Your task to perform on an android device: turn off smart reply in the gmail app Image 0: 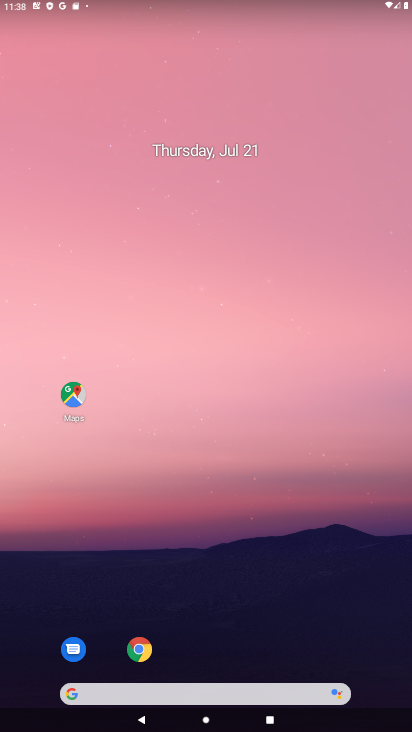
Step 0: drag from (237, 720) to (241, 130)
Your task to perform on an android device: turn off smart reply in the gmail app Image 1: 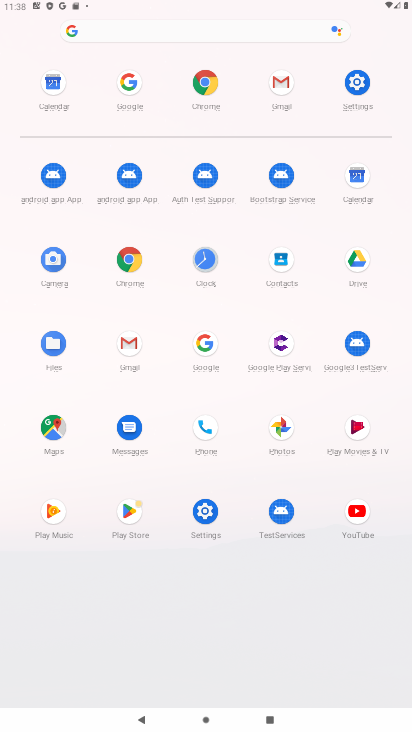
Step 1: click (127, 350)
Your task to perform on an android device: turn off smart reply in the gmail app Image 2: 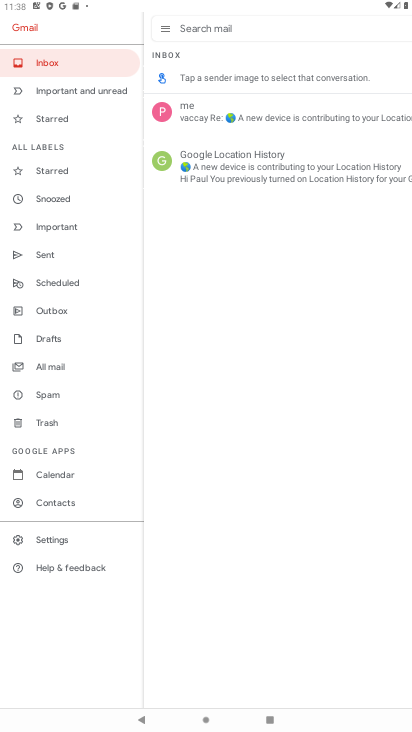
Step 2: click (45, 538)
Your task to perform on an android device: turn off smart reply in the gmail app Image 3: 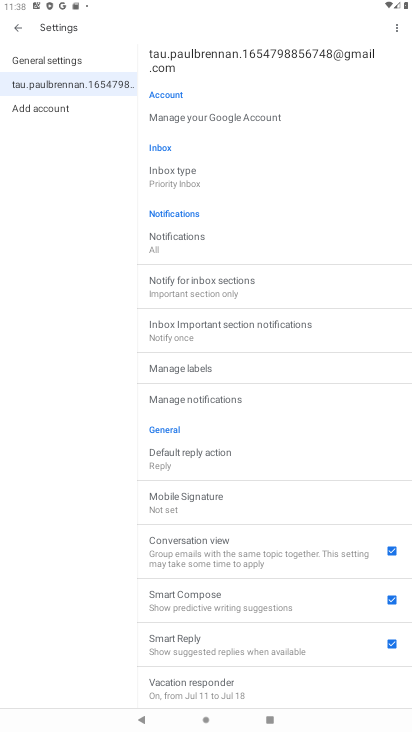
Step 3: click (393, 643)
Your task to perform on an android device: turn off smart reply in the gmail app Image 4: 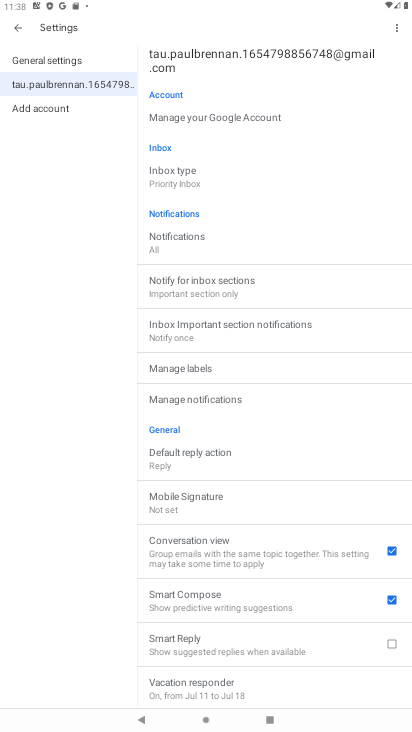
Step 4: task complete